Your task to perform on an android device: change text size in settings app Image 0: 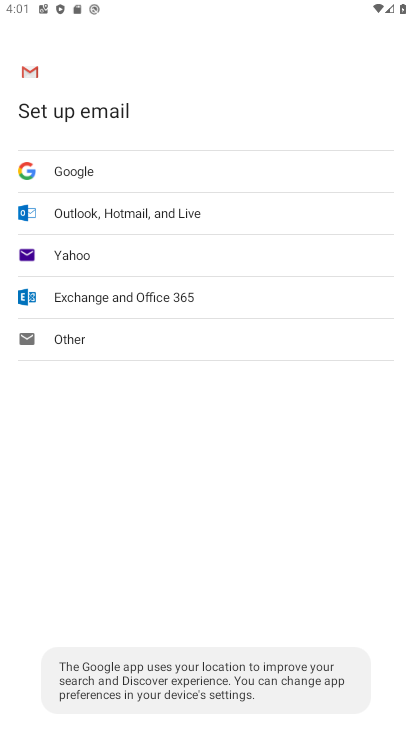
Step 0: press home button
Your task to perform on an android device: change text size in settings app Image 1: 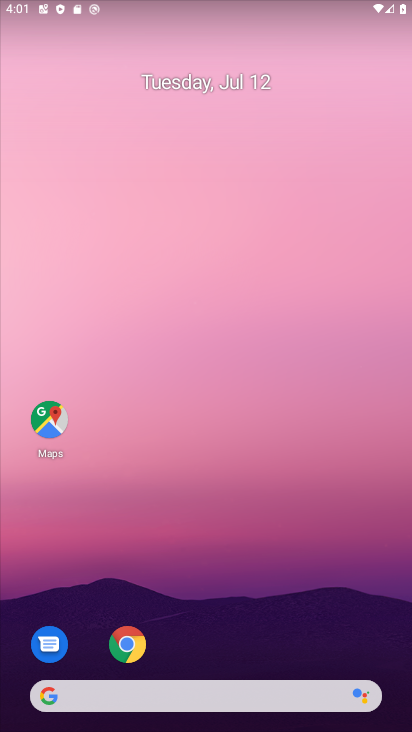
Step 1: drag from (319, 633) to (346, 199)
Your task to perform on an android device: change text size in settings app Image 2: 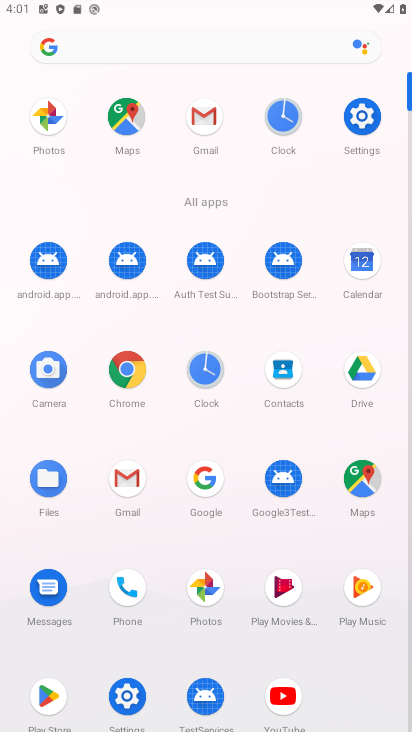
Step 2: click (369, 123)
Your task to perform on an android device: change text size in settings app Image 3: 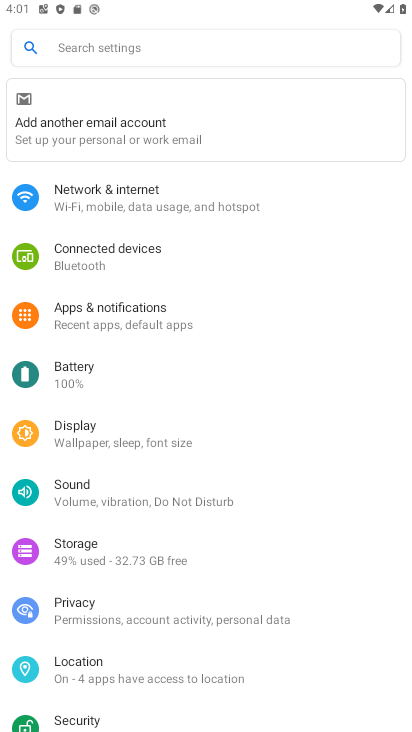
Step 3: click (233, 448)
Your task to perform on an android device: change text size in settings app Image 4: 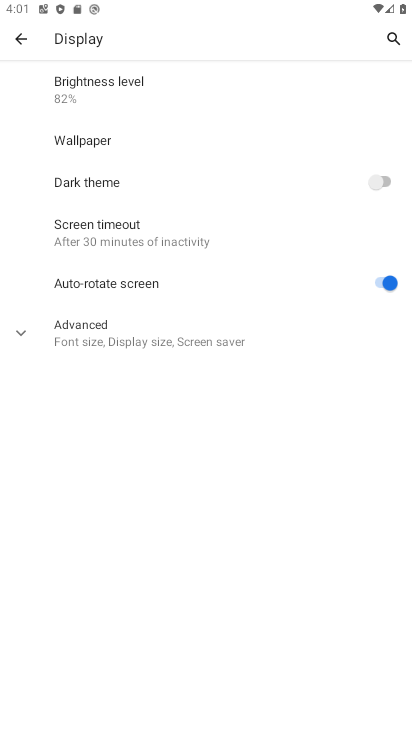
Step 4: click (189, 340)
Your task to perform on an android device: change text size in settings app Image 5: 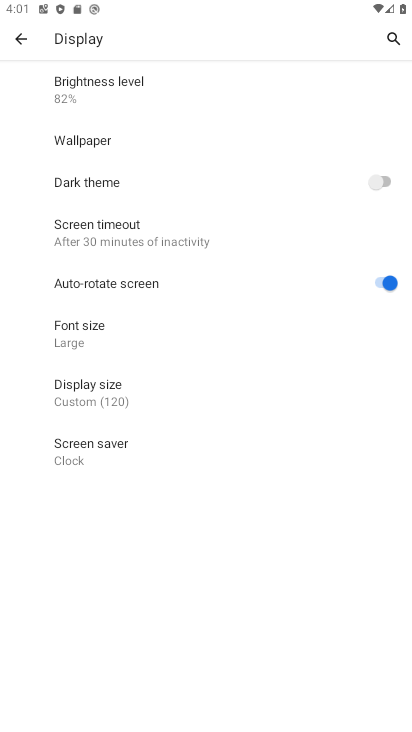
Step 5: click (144, 337)
Your task to perform on an android device: change text size in settings app Image 6: 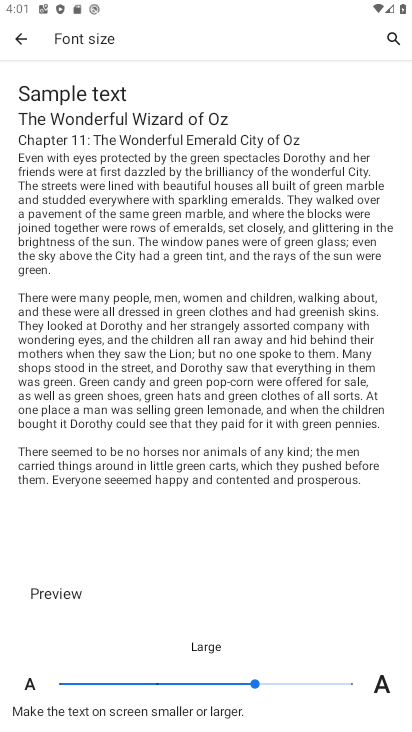
Step 6: click (362, 687)
Your task to perform on an android device: change text size in settings app Image 7: 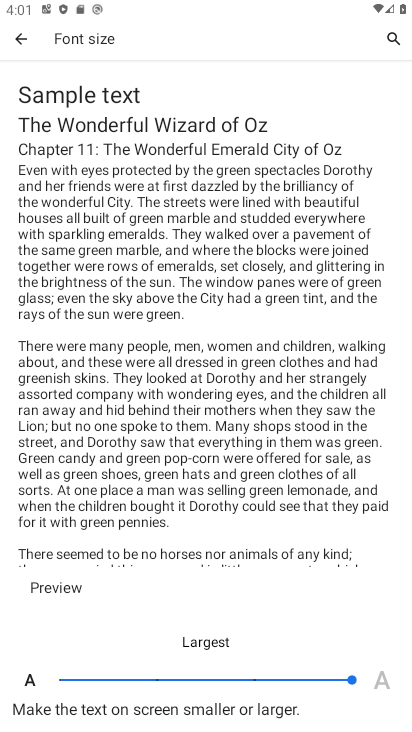
Step 7: task complete